Your task to perform on an android device: choose inbox layout in the gmail app Image 0: 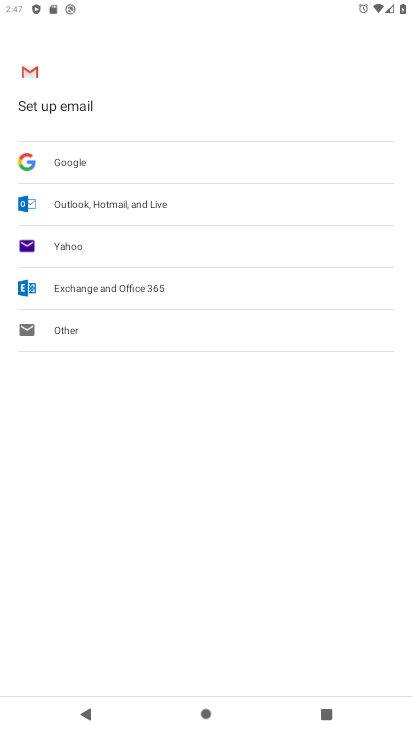
Step 0: press home button
Your task to perform on an android device: choose inbox layout in the gmail app Image 1: 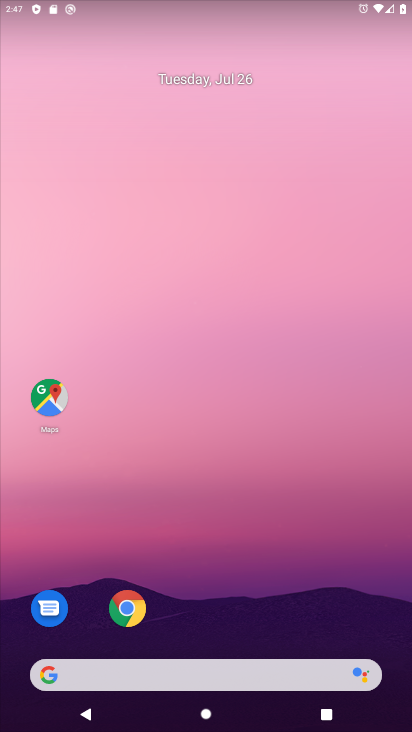
Step 1: drag from (248, 630) to (221, 19)
Your task to perform on an android device: choose inbox layout in the gmail app Image 2: 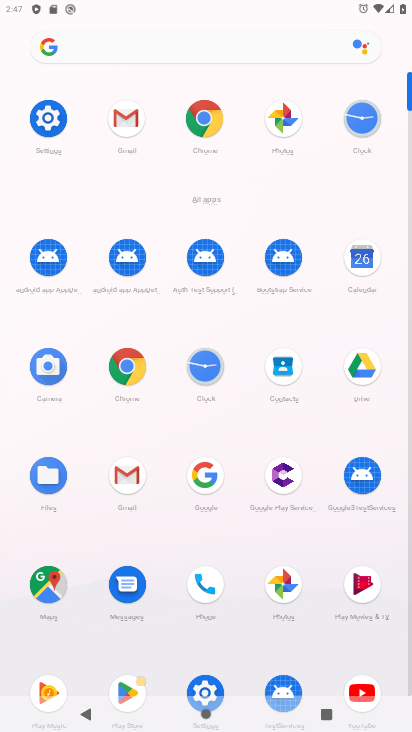
Step 2: click (127, 116)
Your task to perform on an android device: choose inbox layout in the gmail app Image 3: 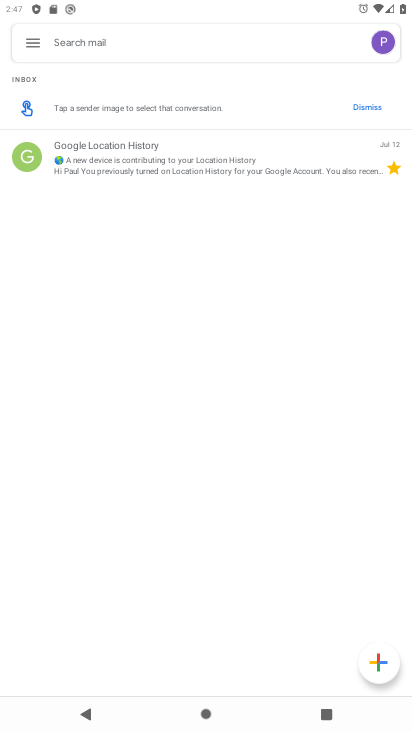
Step 3: click (28, 45)
Your task to perform on an android device: choose inbox layout in the gmail app Image 4: 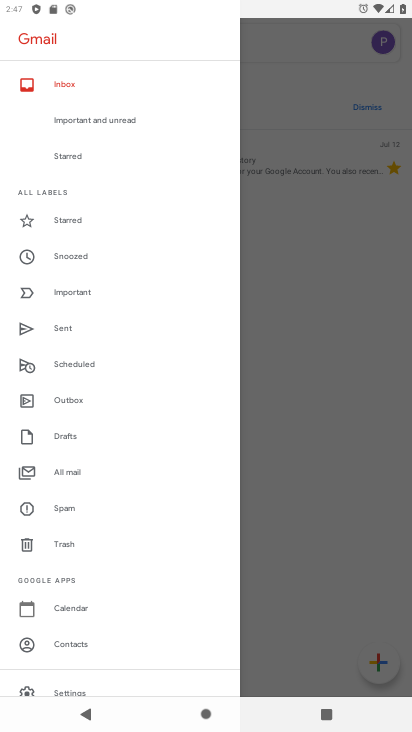
Step 4: click (94, 681)
Your task to perform on an android device: choose inbox layout in the gmail app Image 5: 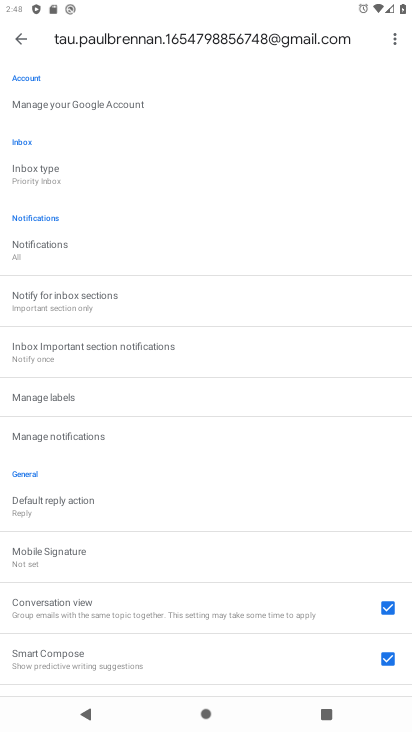
Step 5: click (124, 172)
Your task to perform on an android device: choose inbox layout in the gmail app Image 6: 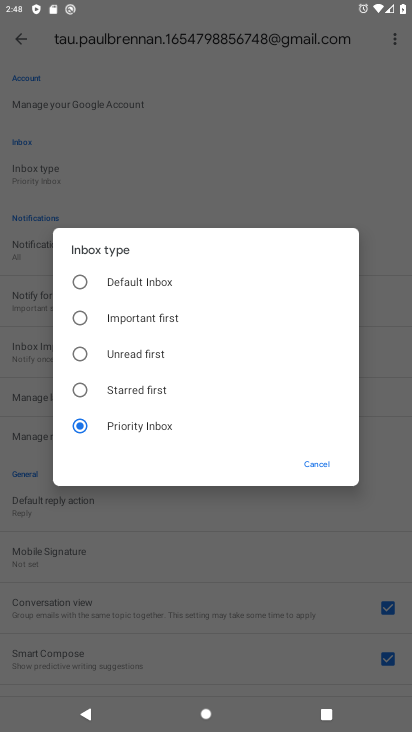
Step 6: click (113, 279)
Your task to perform on an android device: choose inbox layout in the gmail app Image 7: 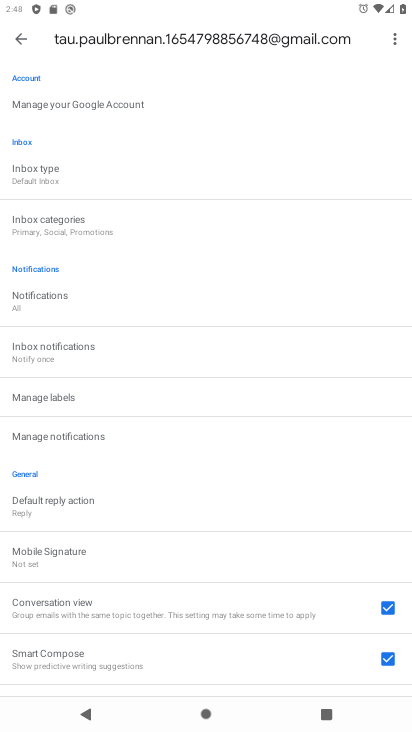
Step 7: task complete